Your task to perform on an android device: Show me popular videos on Youtube Image 0: 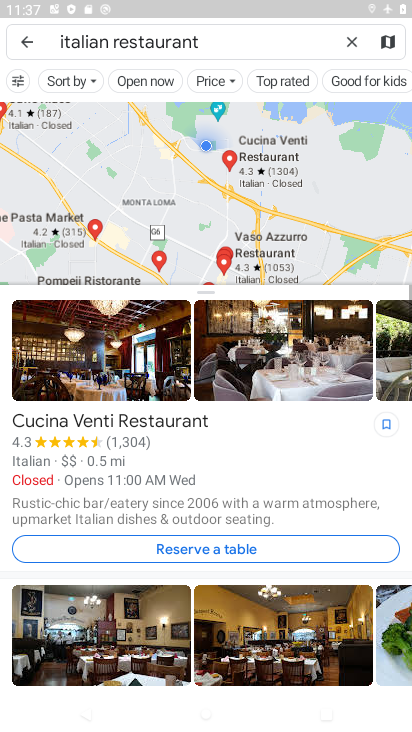
Step 0: drag from (239, 660) to (264, 188)
Your task to perform on an android device: Show me popular videos on Youtube Image 1: 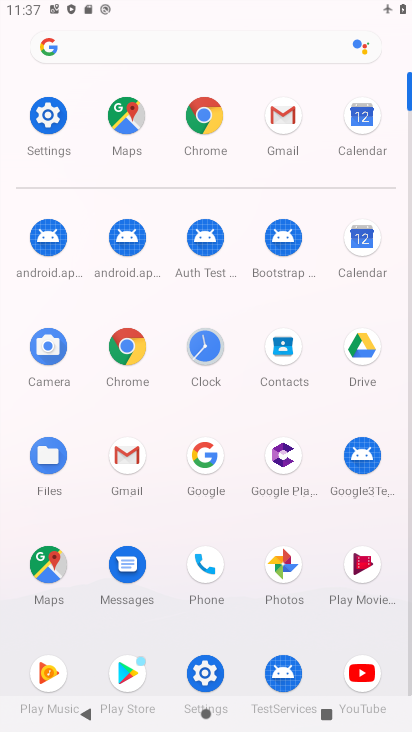
Step 1: click (353, 667)
Your task to perform on an android device: Show me popular videos on Youtube Image 2: 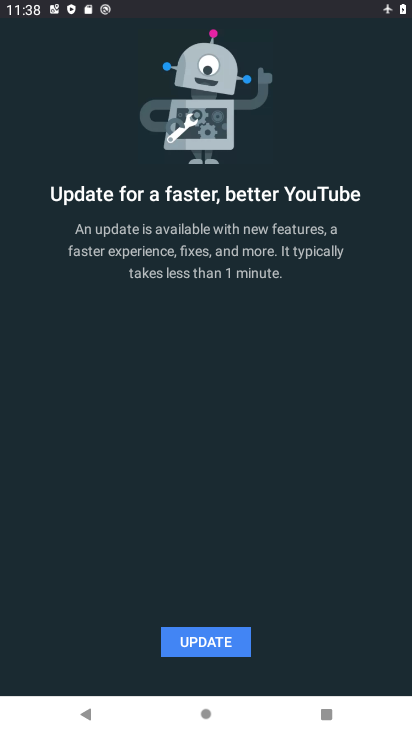
Step 2: task complete